Your task to perform on an android device: Open location settings Image 0: 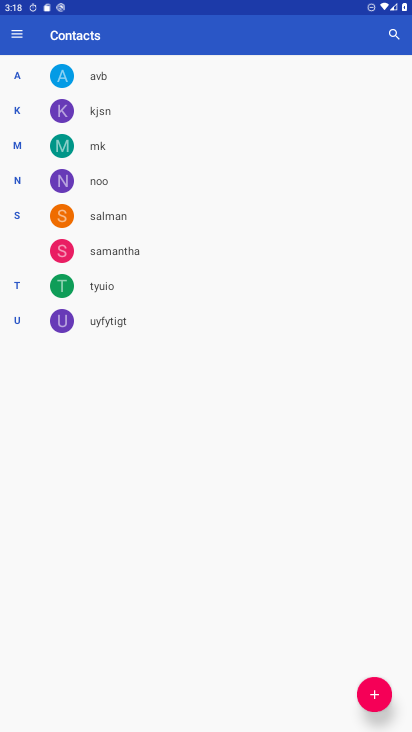
Step 0: press home button
Your task to perform on an android device: Open location settings Image 1: 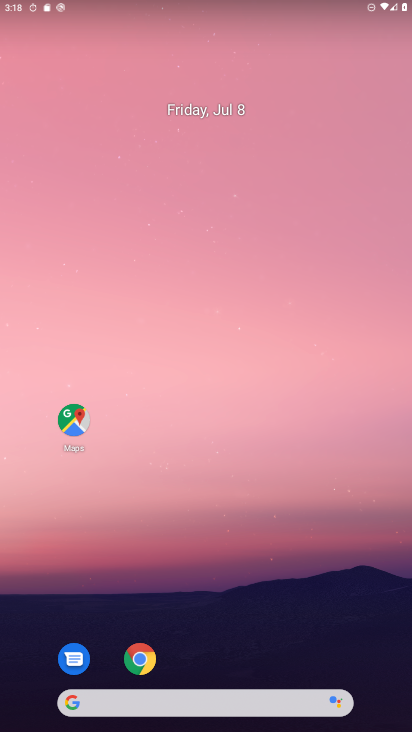
Step 1: drag from (280, 613) to (257, 71)
Your task to perform on an android device: Open location settings Image 2: 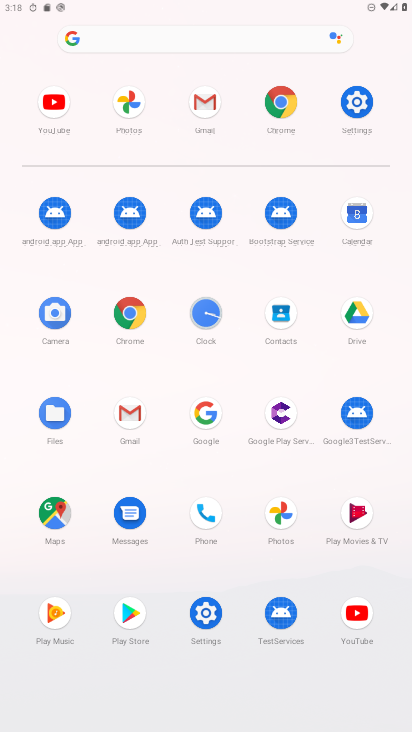
Step 2: click (352, 95)
Your task to perform on an android device: Open location settings Image 3: 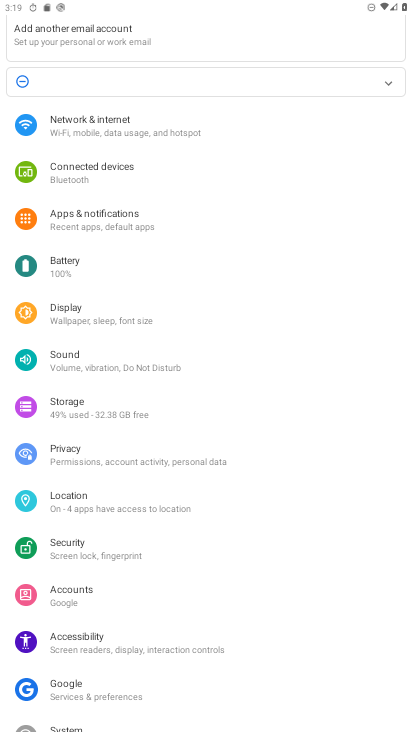
Step 3: click (109, 499)
Your task to perform on an android device: Open location settings Image 4: 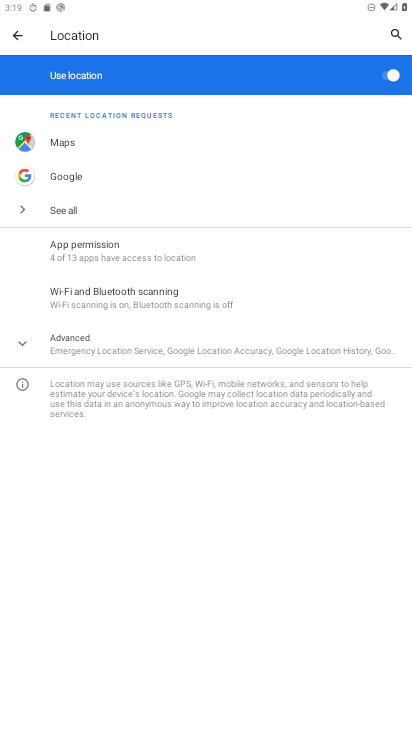
Step 4: task complete